Your task to perform on an android device: Open Wikipedia Image 0: 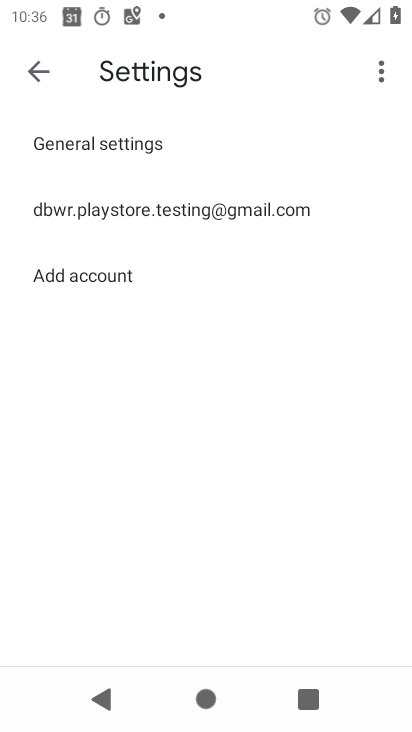
Step 0: press home button
Your task to perform on an android device: Open Wikipedia Image 1: 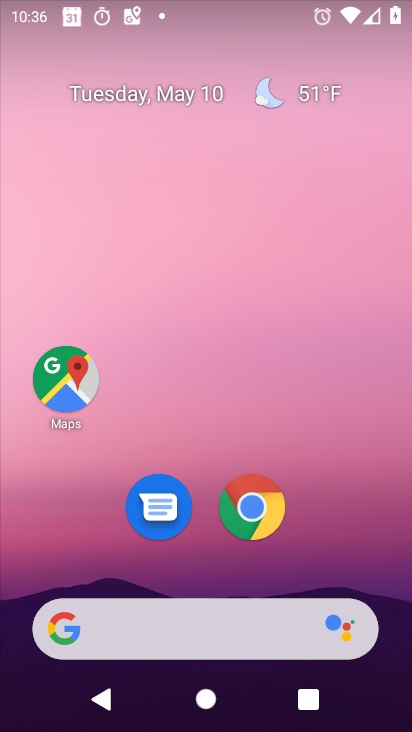
Step 1: drag from (138, 579) to (164, 180)
Your task to perform on an android device: Open Wikipedia Image 2: 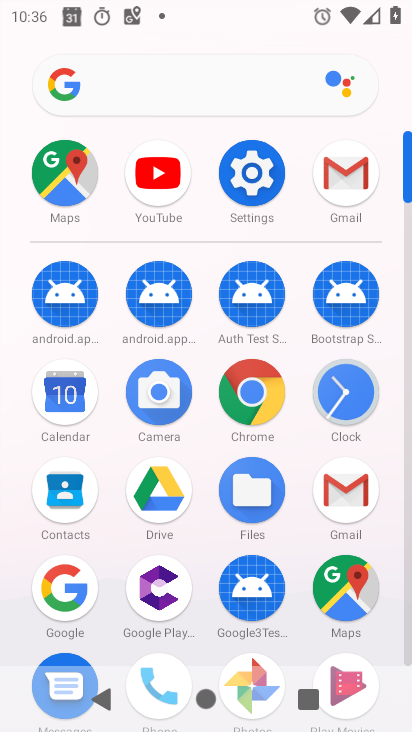
Step 2: click (251, 401)
Your task to perform on an android device: Open Wikipedia Image 3: 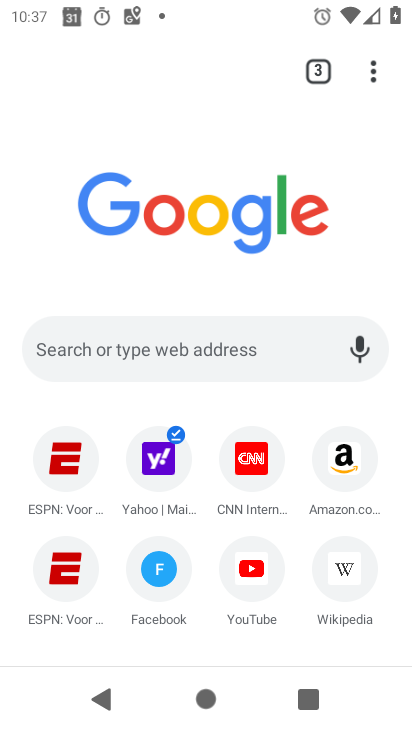
Step 3: click (347, 564)
Your task to perform on an android device: Open Wikipedia Image 4: 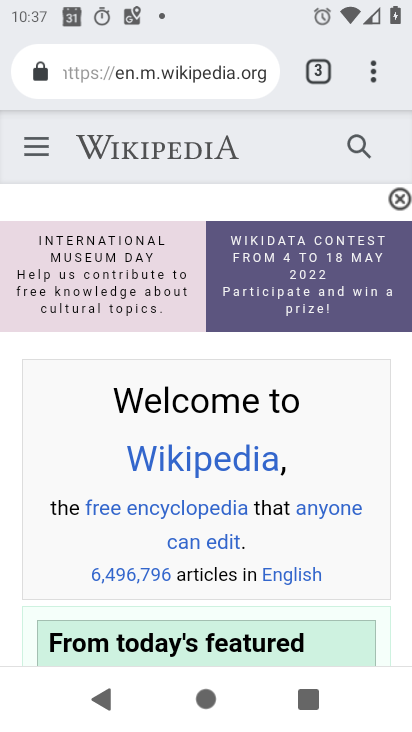
Step 4: task complete